Your task to perform on an android device: When is my next meeting? Image 0: 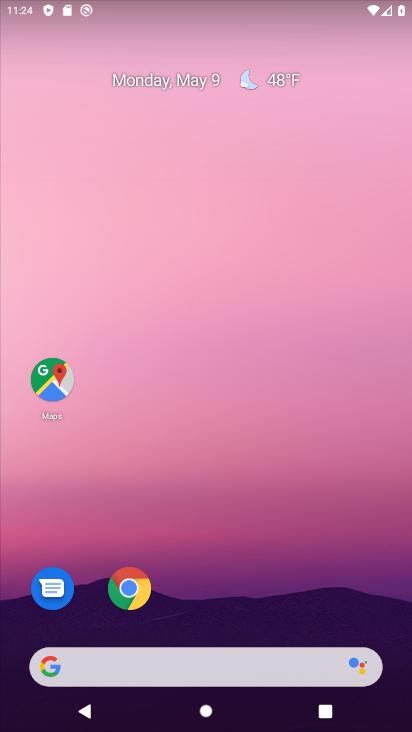
Step 0: drag from (276, 596) to (270, 83)
Your task to perform on an android device: When is my next meeting? Image 1: 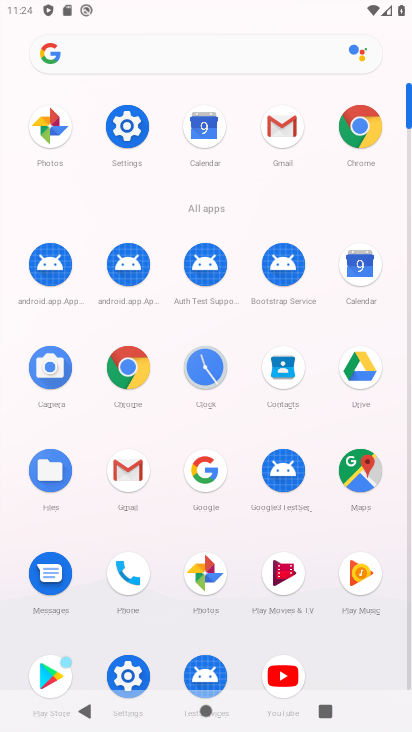
Step 1: click (133, 113)
Your task to perform on an android device: When is my next meeting? Image 2: 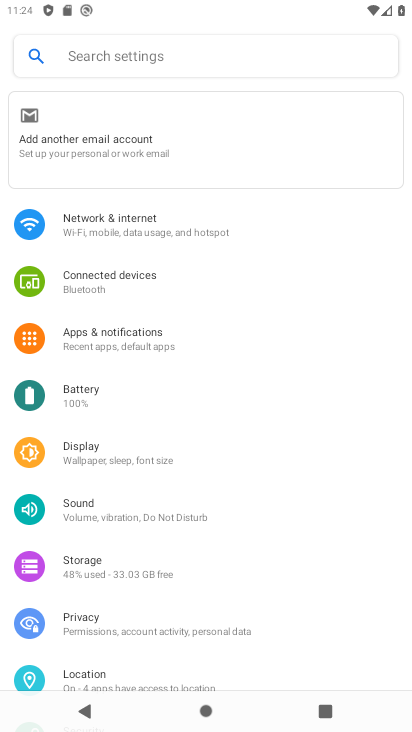
Step 2: click (180, 207)
Your task to perform on an android device: When is my next meeting? Image 3: 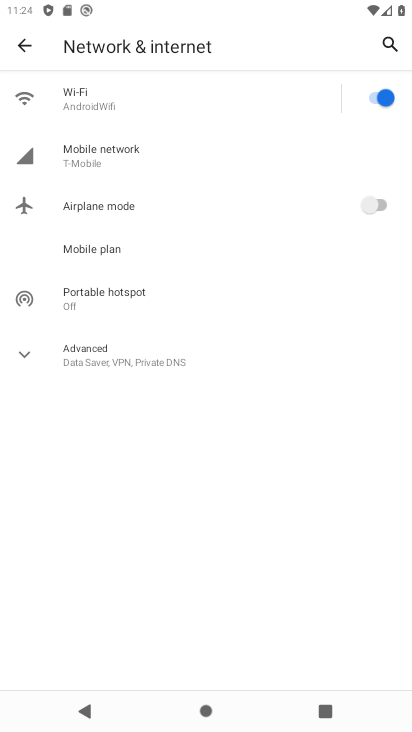
Step 3: click (179, 94)
Your task to perform on an android device: When is my next meeting? Image 4: 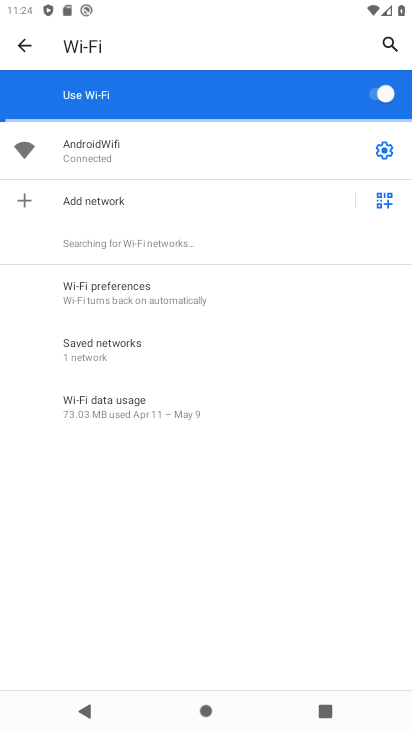
Step 4: press home button
Your task to perform on an android device: When is my next meeting? Image 5: 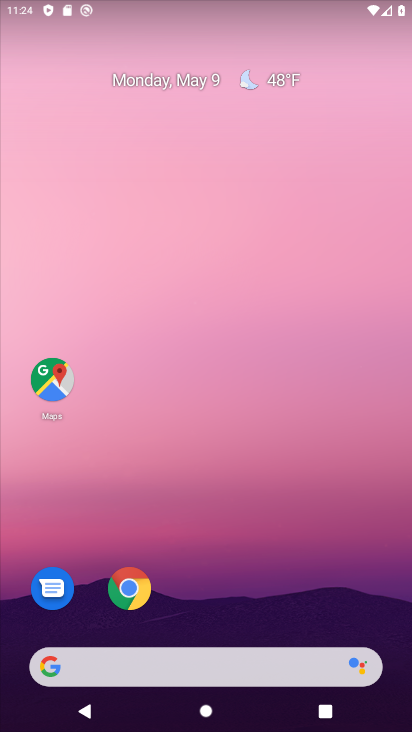
Step 5: drag from (185, 561) to (309, 6)
Your task to perform on an android device: When is my next meeting? Image 6: 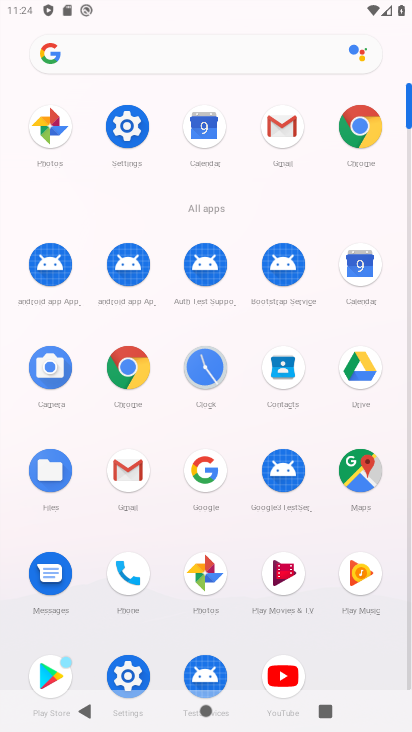
Step 6: click (200, 131)
Your task to perform on an android device: When is my next meeting? Image 7: 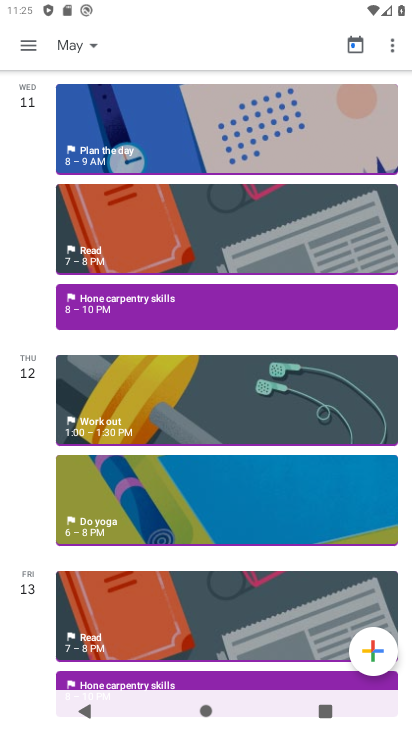
Step 7: click (25, 40)
Your task to perform on an android device: When is my next meeting? Image 8: 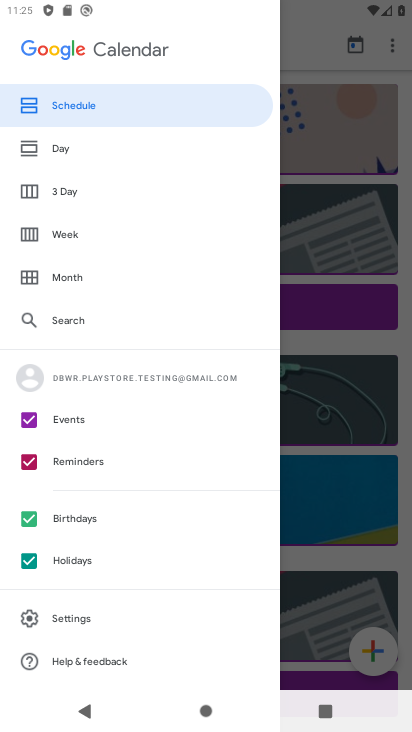
Step 8: click (85, 274)
Your task to perform on an android device: When is my next meeting? Image 9: 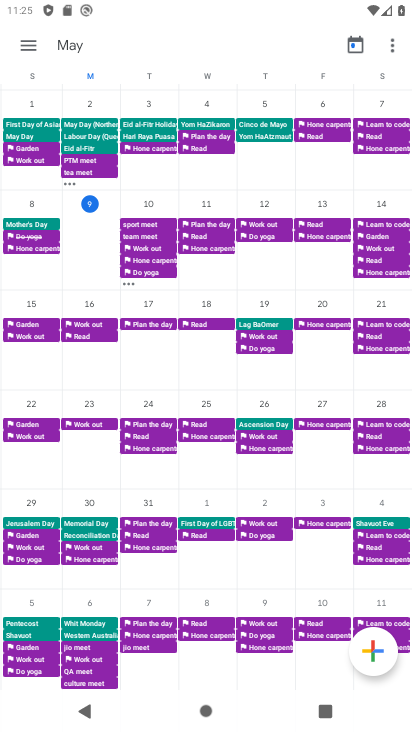
Step 9: click (130, 220)
Your task to perform on an android device: When is my next meeting? Image 10: 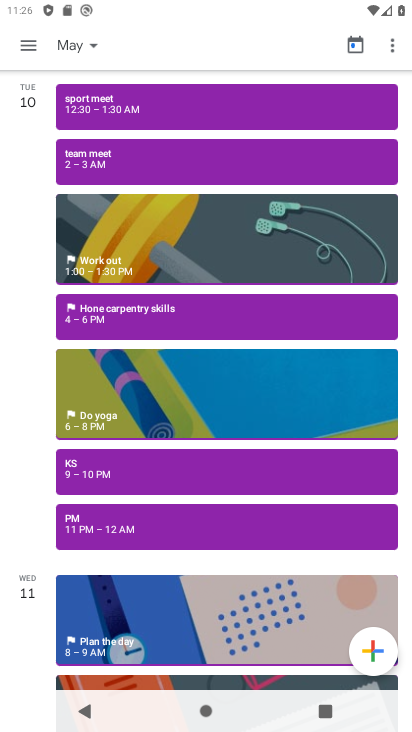
Step 10: task complete